Your task to perform on an android device: toggle sleep mode Image 0: 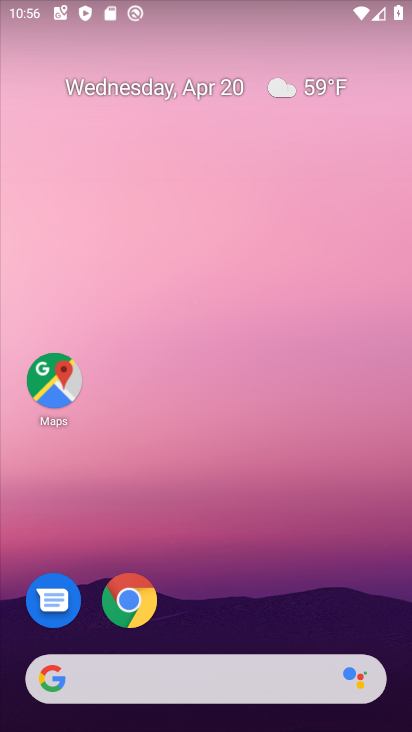
Step 0: drag from (269, 592) to (292, 134)
Your task to perform on an android device: toggle sleep mode Image 1: 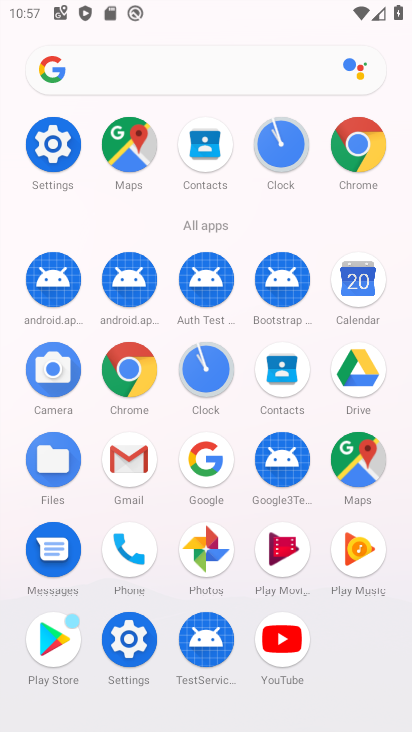
Step 1: click (363, 150)
Your task to perform on an android device: toggle sleep mode Image 2: 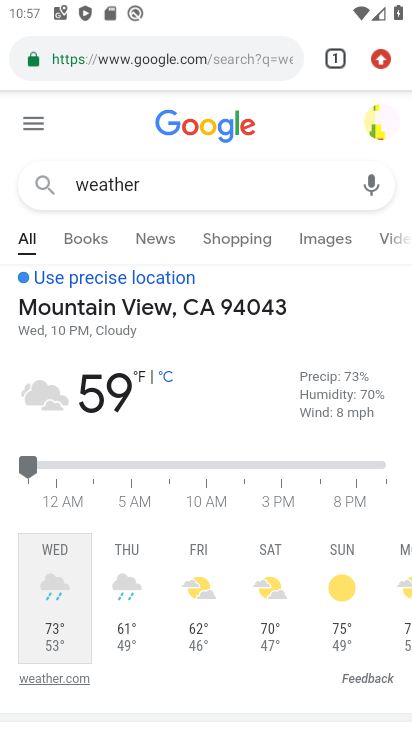
Step 2: press home button
Your task to perform on an android device: toggle sleep mode Image 3: 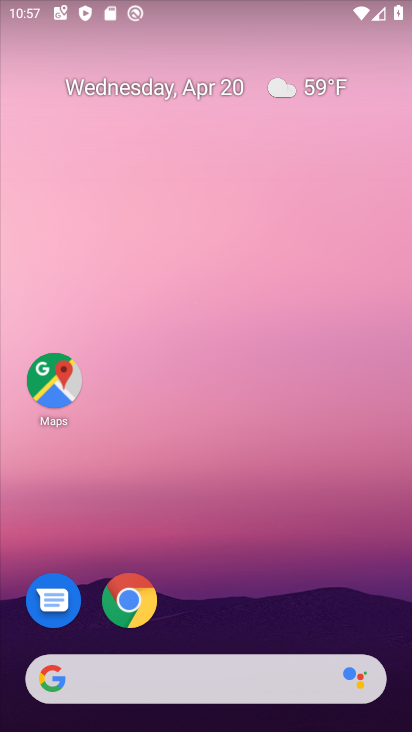
Step 3: drag from (292, 565) to (280, 156)
Your task to perform on an android device: toggle sleep mode Image 4: 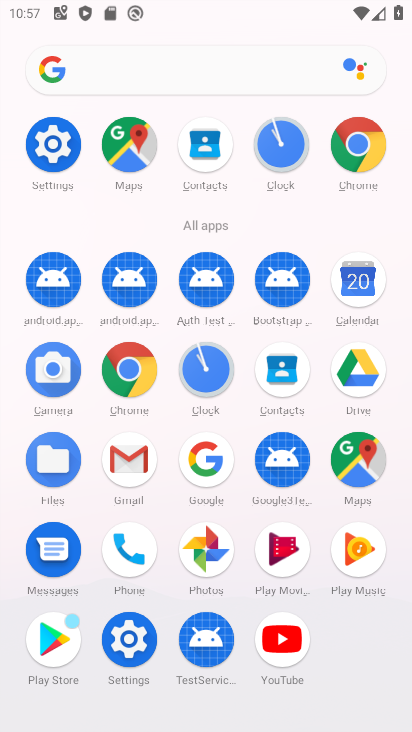
Step 4: click (46, 138)
Your task to perform on an android device: toggle sleep mode Image 5: 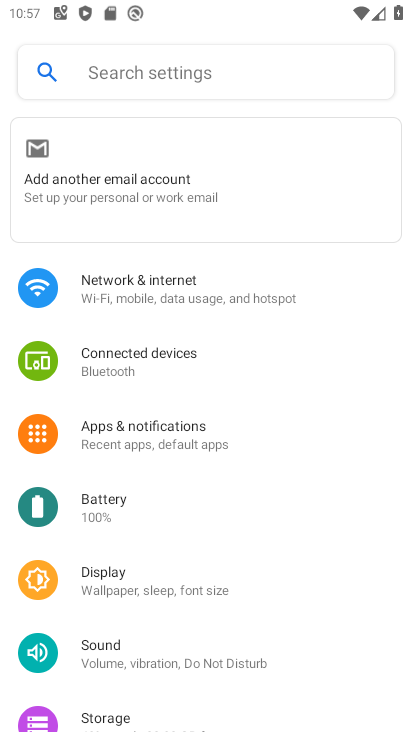
Step 5: drag from (233, 691) to (241, 449)
Your task to perform on an android device: toggle sleep mode Image 6: 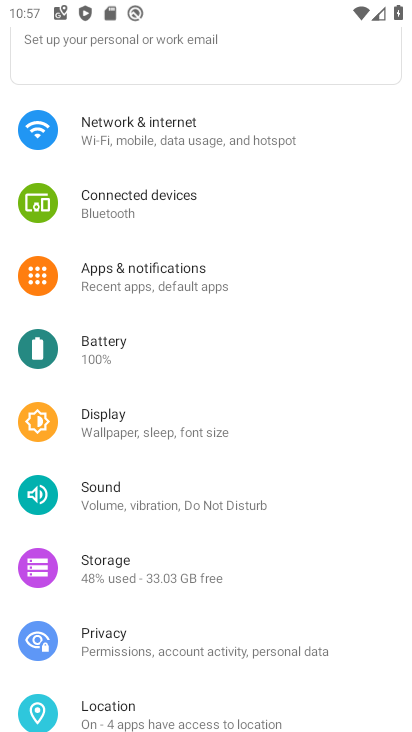
Step 6: click (230, 427)
Your task to perform on an android device: toggle sleep mode Image 7: 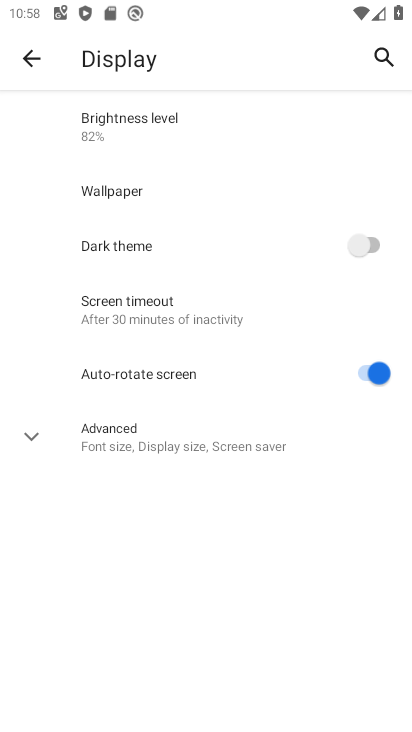
Step 7: click (271, 431)
Your task to perform on an android device: toggle sleep mode Image 8: 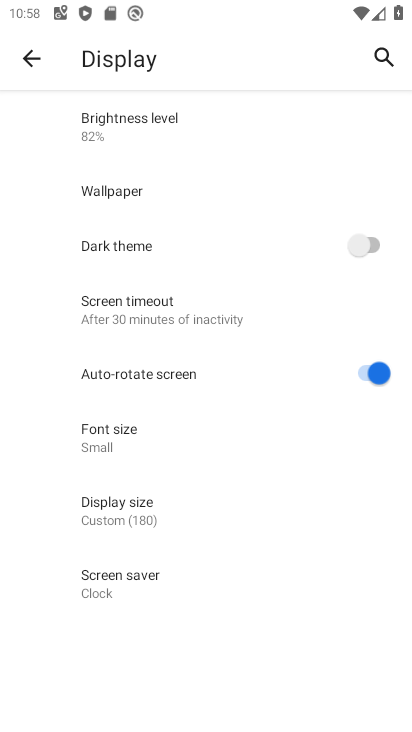
Step 8: task complete